Your task to perform on an android device: What's on my calendar tomorrow? Image 0: 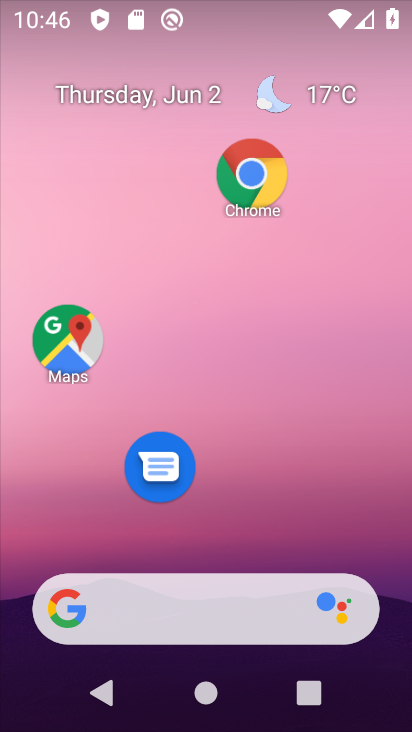
Step 0: press home button
Your task to perform on an android device: What's on my calendar tomorrow? Image 1: 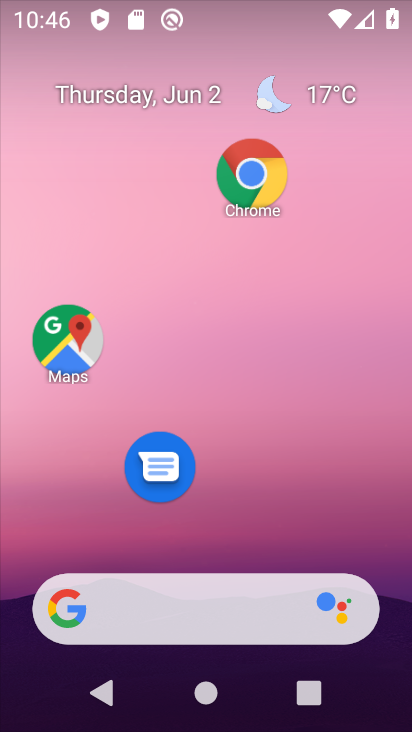
Step 1: drag from (265, 501) to (286, 56)
Your task to perform on an android device: What's on my calendar tomorrow? Image 2: 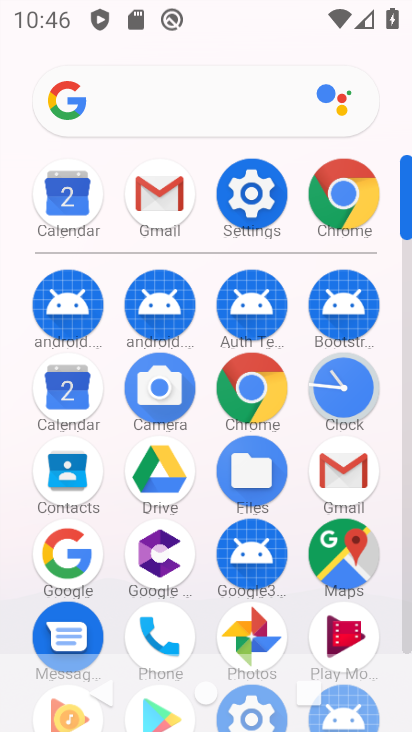
Step 2: click (80, 187)
Your task to perform on an android device: What's on my calendar tomorrow? Image 3: 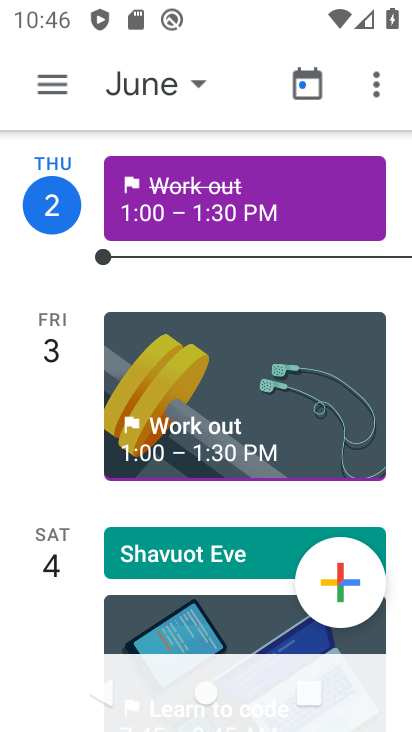
Step 3: task complete